Your task to perform on an android device: toggle notification dots Image 0: 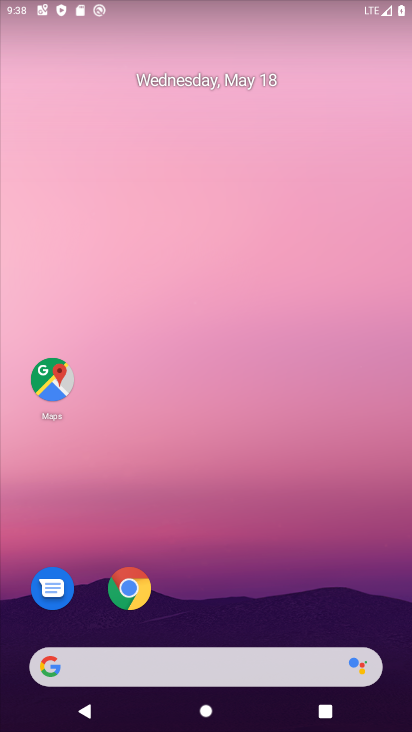
Step 0: drag from (309, 618) to (337, 3)
Your task to perform on an android device: toggle notification dots Image 1: 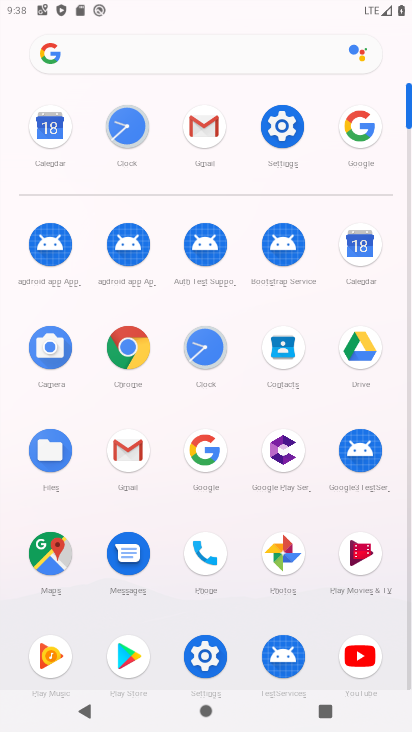
Step 1: click (280, 124)
Your task to perform on an android device: toggle notification dots Image 2: 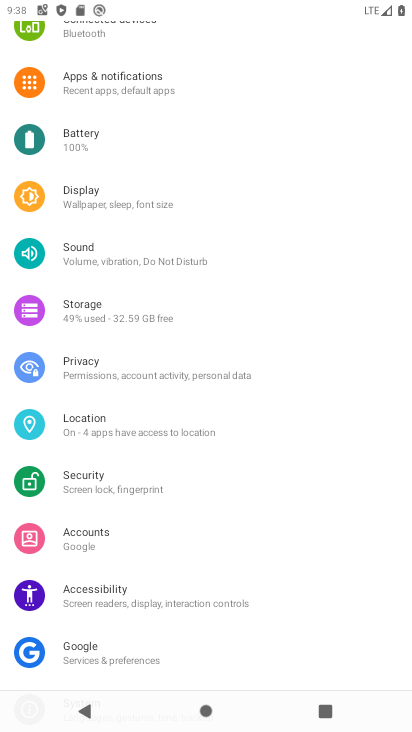
Step 2: drag from (281, 189) to (287, 412)
Your task to perform on an android device: toggle notification dots Image 3: 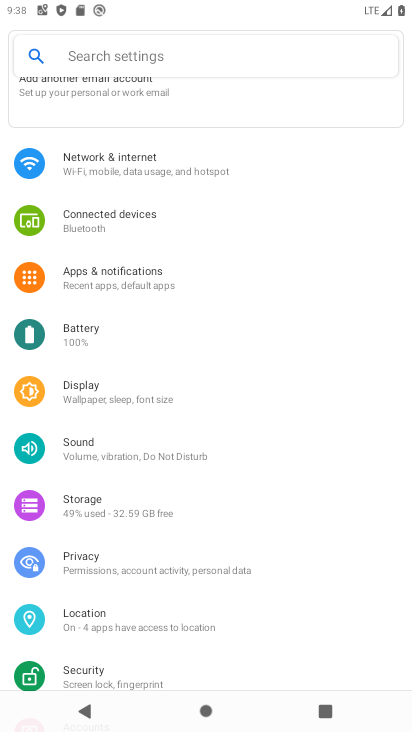
Step 3: click (129, 281)
Your task to perform on an android device: toggle notification dots Image 4: 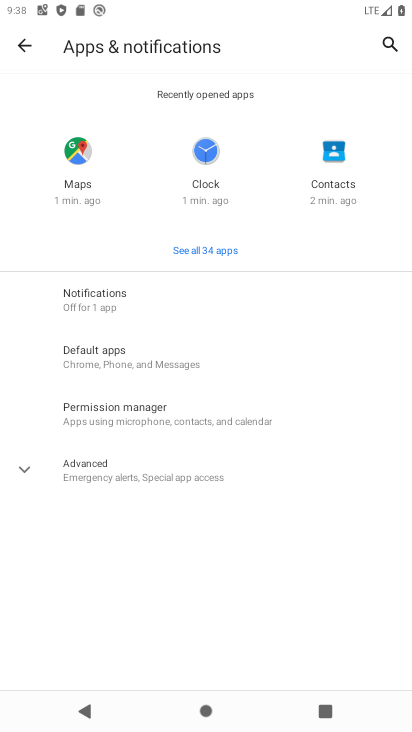
Step 4: click (73, 306)
Your task to perform on an android device: toggle notification dots Image 5: 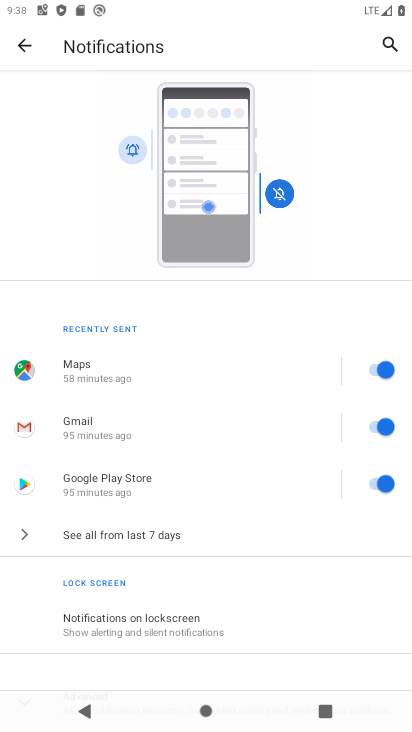
Step 5: drag from (119, 555) to (105, 300)
Your task to perform on an android device: toggle notification dots Image 6: 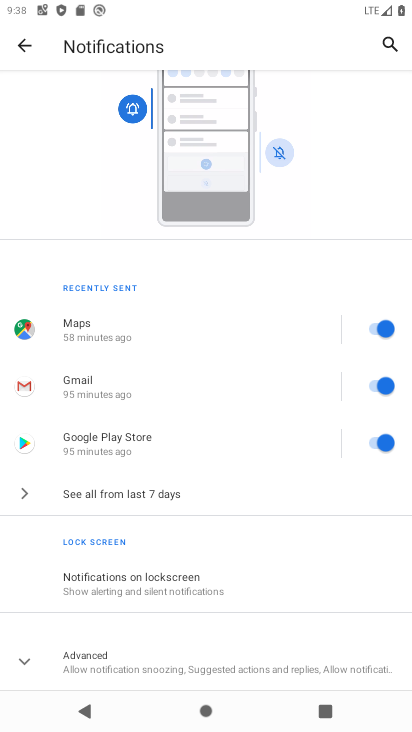
Step 6: click (23, 667)
Your task to perform on an android device: toggle notification dots Image 7: 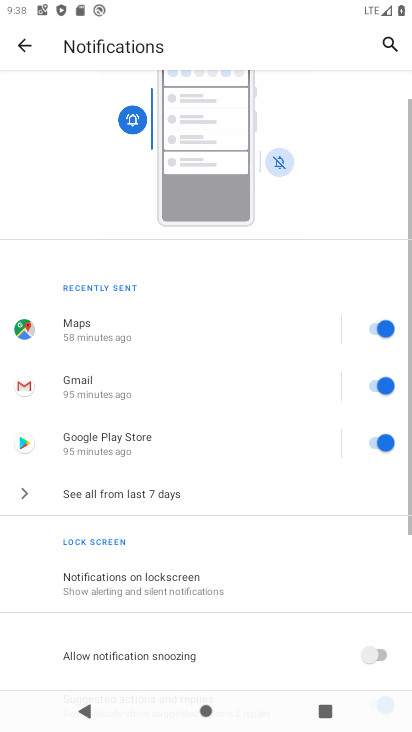
Step 7: drag from (90, 655) to (95, 353)
Your task to perform on an android device: toggle notification dots Image 8: 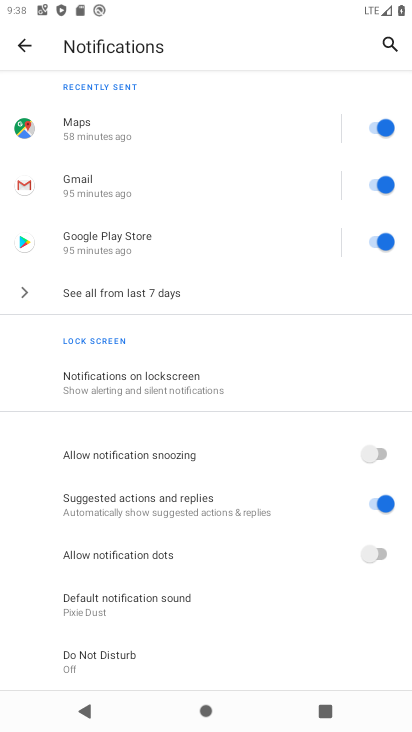
Step 8: click (375, 553)
Your task to perform on an android device: toggle notification dots Image 9: 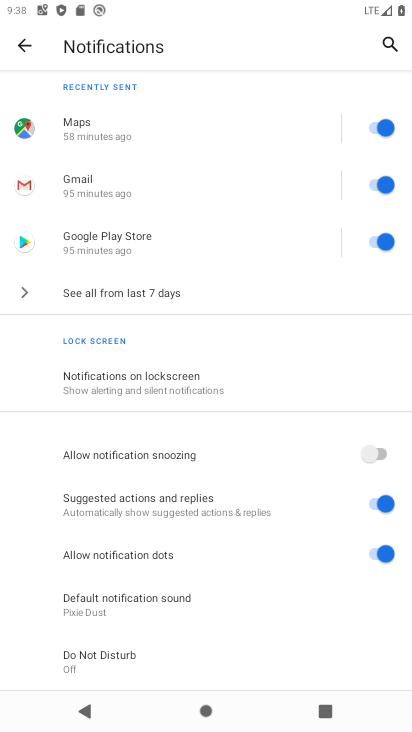
Step 9: task complete